Your task to perform on an android device: check data usage Image 0: 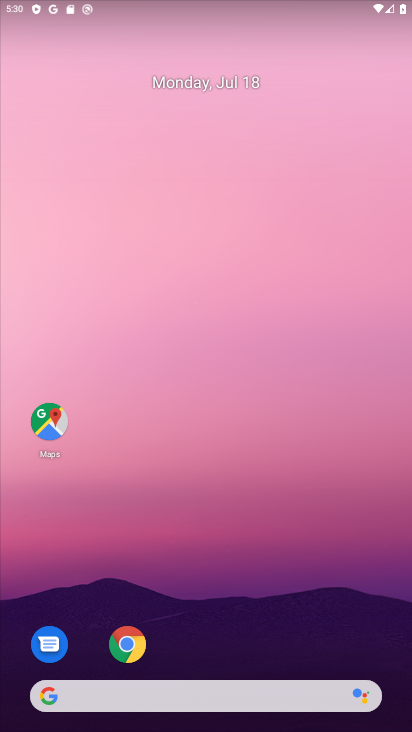
Step 0: press home button
Your task to perform on an android device: check data usage Image 1: 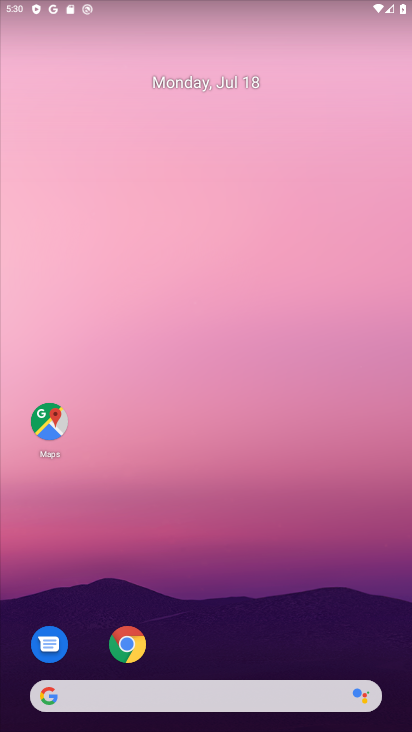
Step 1: drag from (302, 653) to (319, 140)
Your task to perform on an android device: check data usage Image 2: 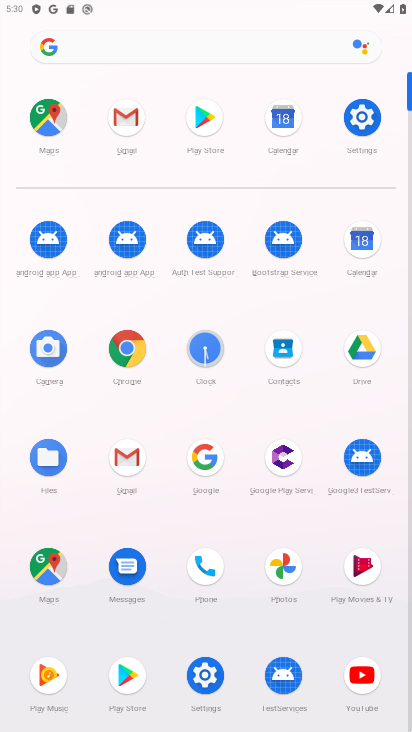
Step 2: click (361, 117)
Your task to perform on an android device: check data usage Image 3: 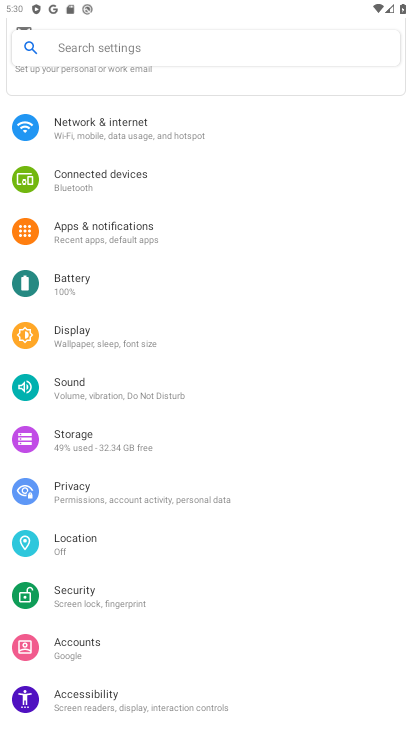
Step 3: click (127, 127)
Your task to perform on an android device: check data usage Image 4: 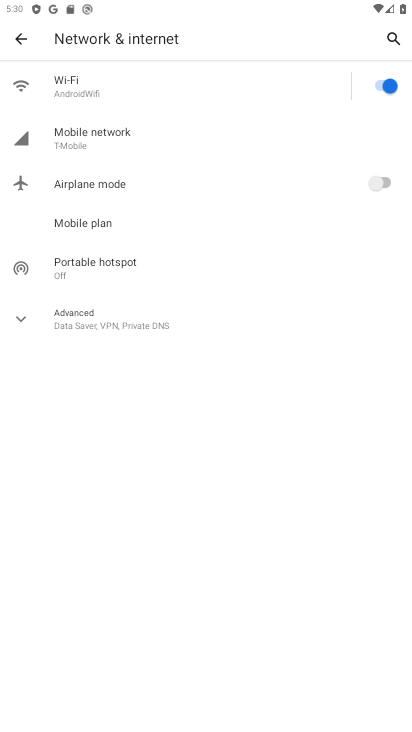
Step 4: click (107, 144)
Your task to perform on an android device: check data usage Image 5: 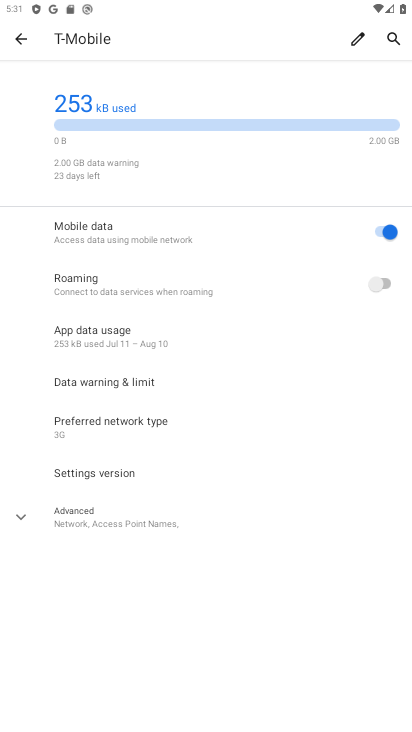
Step 5: task complete